Your task to perform on an android device: toggle data saver in the chrome app Image 0: 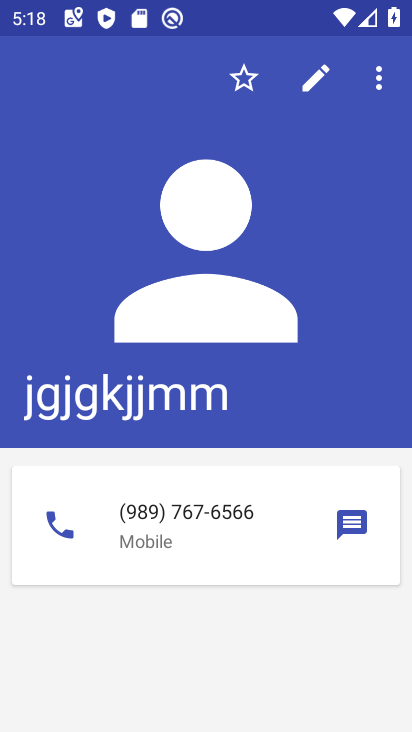
Step 0: press home button
Your task to perform on an android device: toggle data saver in the chrome app Image 1: 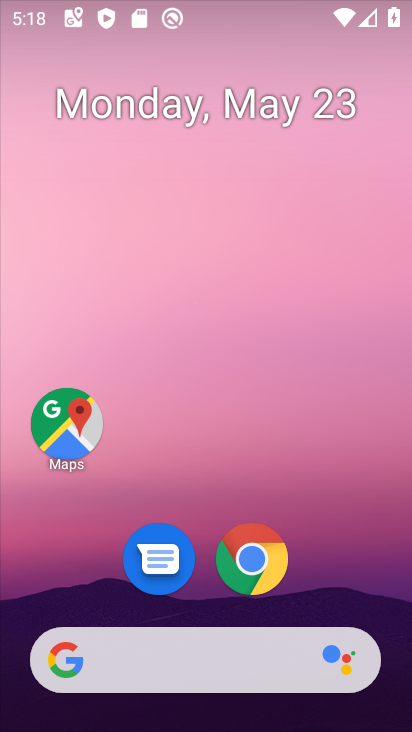
Step 1: drag from (244, 623) to (261, 68)
Your task to perform on an android device: toggle data saver in the chrome app Image 2: 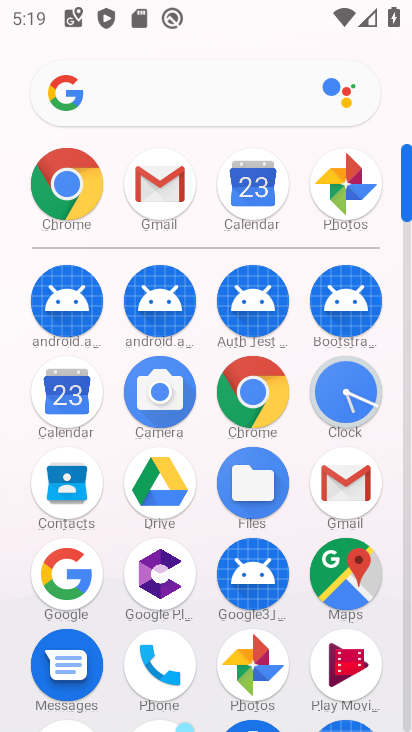
Step 2: click (245, 404)
Your task to perform on an android device: toggle data saver in the chrome app Image 3: 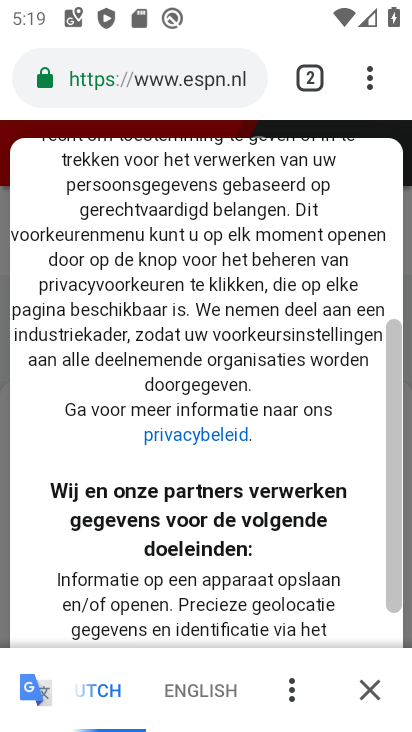
Step 3: drag from (376, 72) to (108, 617)
Your task to perform on an android device: toggle data saver in the chrome app Image 4: 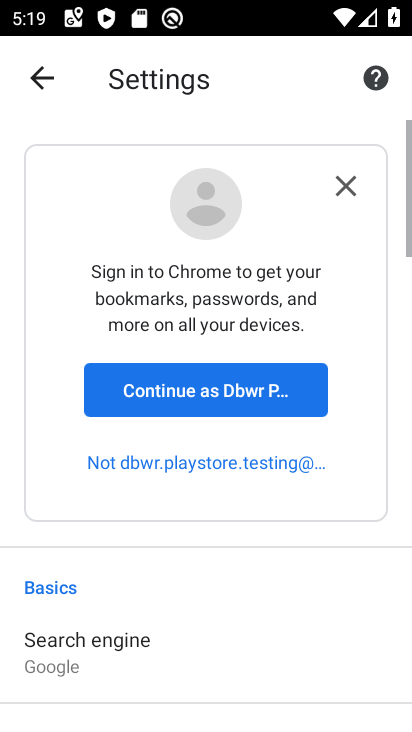
Step 4: drag from (133, 672) to (157, 0)
Your task to perform on an android device: toggle data saver in the chrome app Image 5: 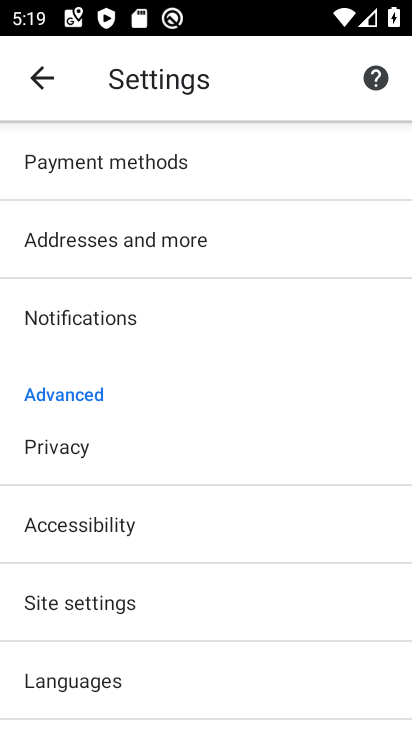
Step 5: drag from (170, 622) to (202, 210)
Your task to perform on an android device: toggle data saver in the chrome app Image 6: 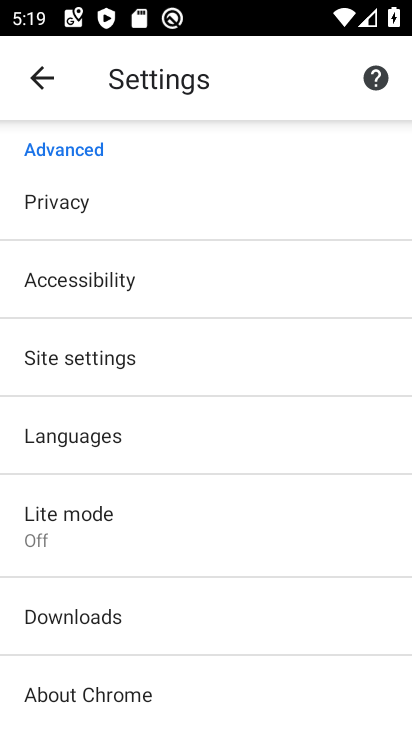
Step 6: click (105, 356)
Your task to perform on an android device: toggle data saver in the chrome app Image 7: 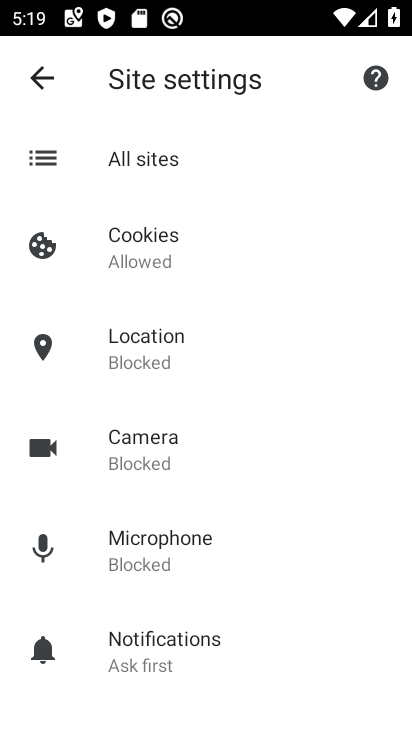
Step 7: press back button
Your task to perform on an android device: toggle data saver in the chrome app Image 8: 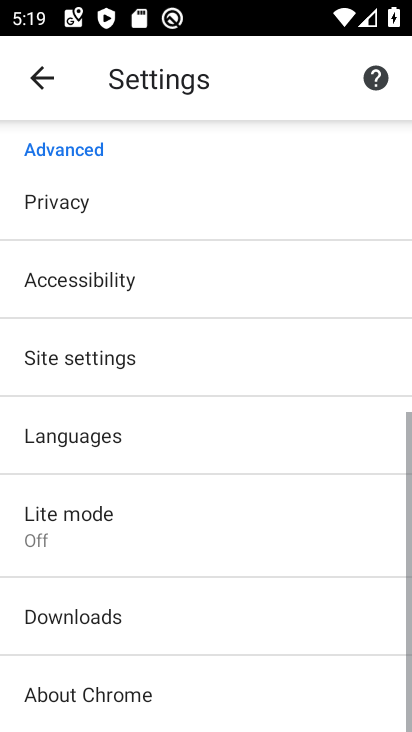
Step 8: click (118, 508)
Your task to perform on an android device: toggle data saver in the chrome app Image 9: 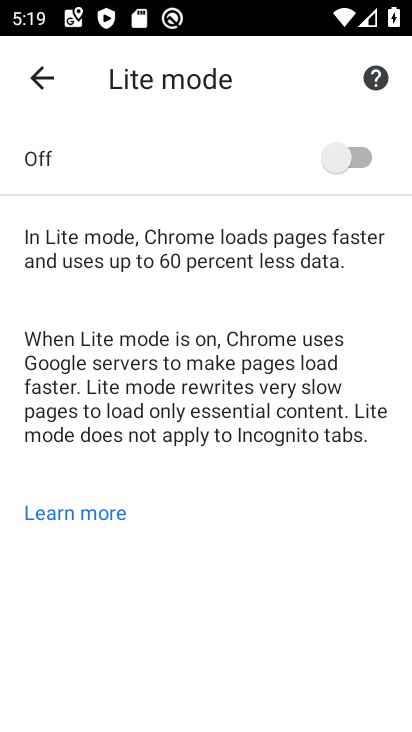
Step 9: click (362, 157)
Your task to perform on an android device: toggle data saver in the chrome app Image 10: 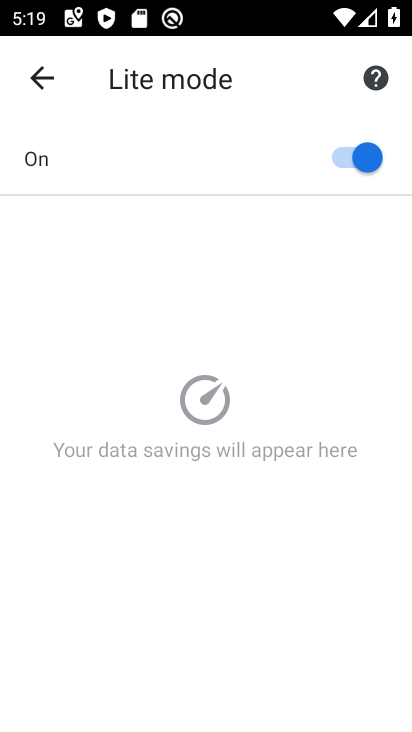
Step 10: task complete